Your task to perform on an android device: check google app version Image 0: 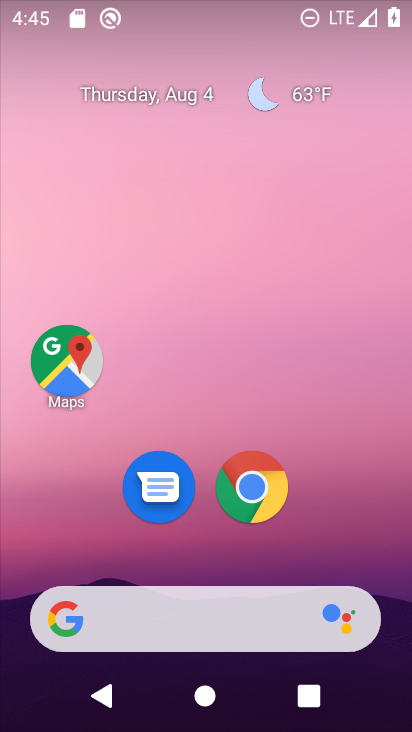
Step 0: drag from (227, 566) to (218, 18)
Your task to perform on an android device: check google app version Image 1: 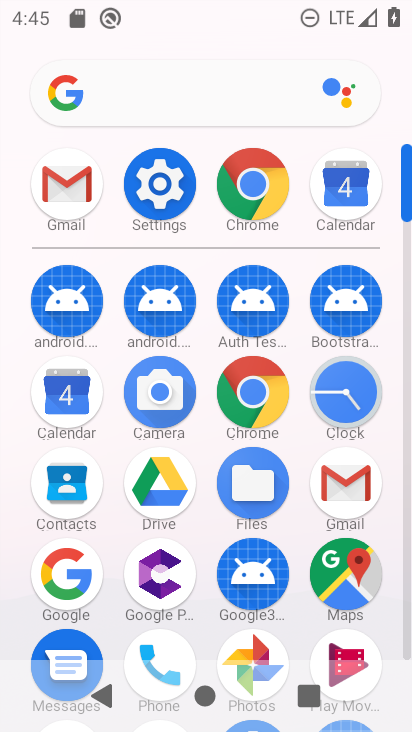
Step 1: click (74, 579)
Your task to perform on an android device: check google app version Image 2: 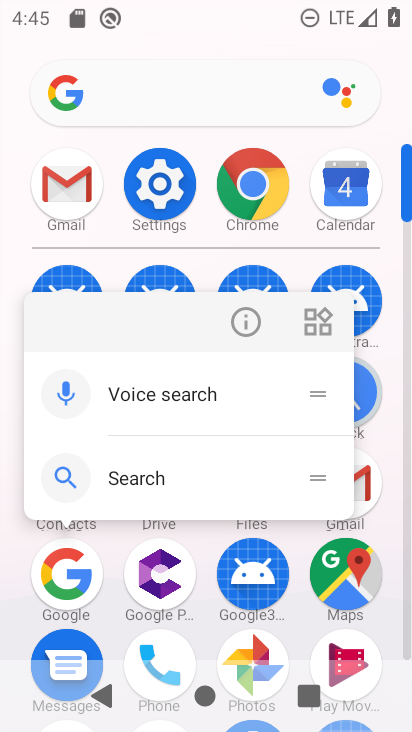
Step 2: click (236, 315)
Your task to perform on an android device: check google app version Image 3: 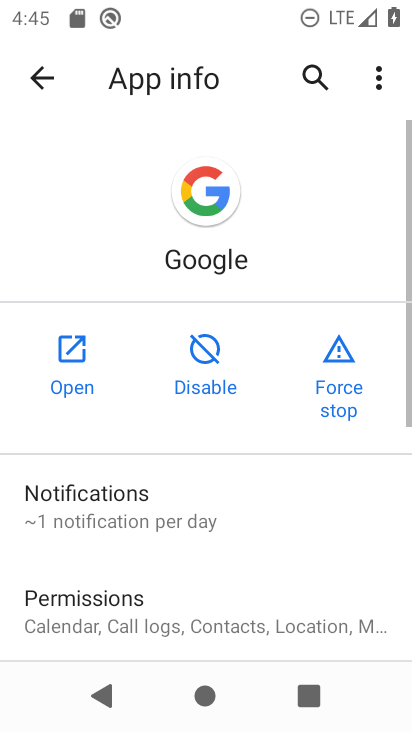
Step 3: drag from (188, 604) to (213, 95)
Your task to perform on an android device: check google app version Image 4: 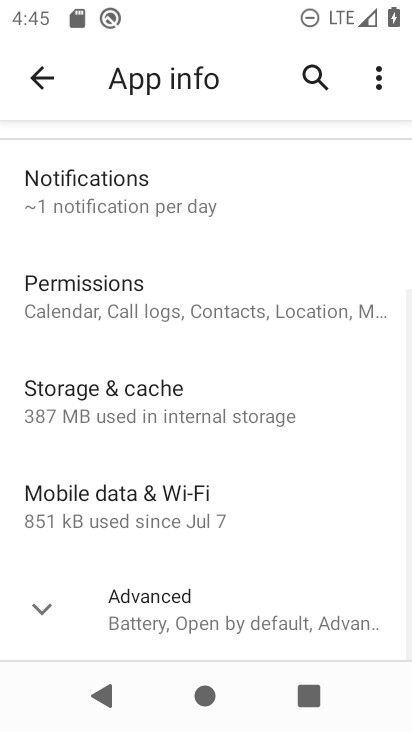
Step 4: drag from (197, 587) to (231, 7)
Your task to perform on an android device: check google app version Image 5: 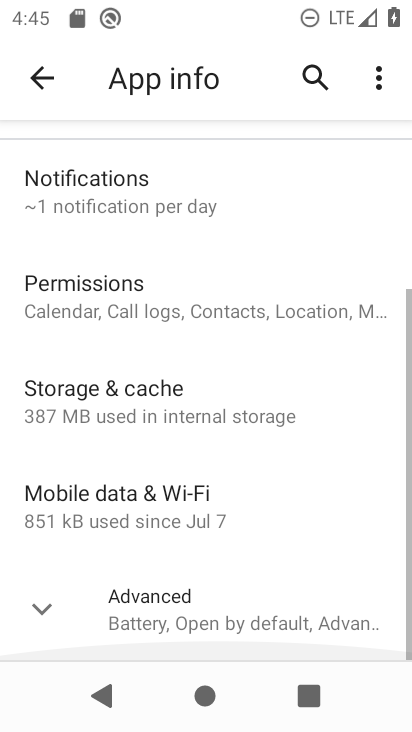
Step 5: click (180, 608)
Your task to perform on an android device: check google app version Image 6: 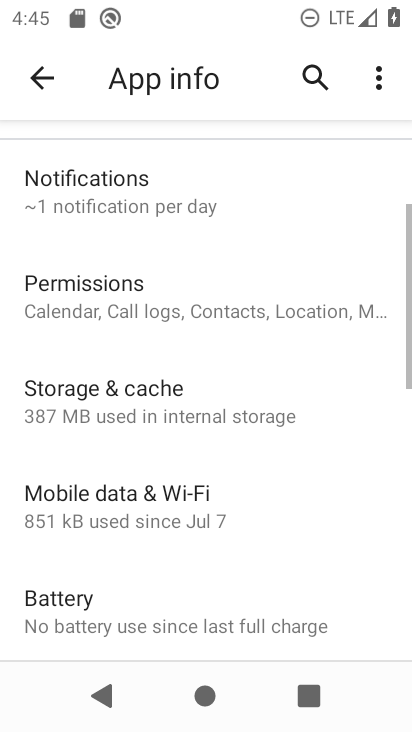
Step 6: task complete